Your task to perform on an android device: turn off wifi Image 0: 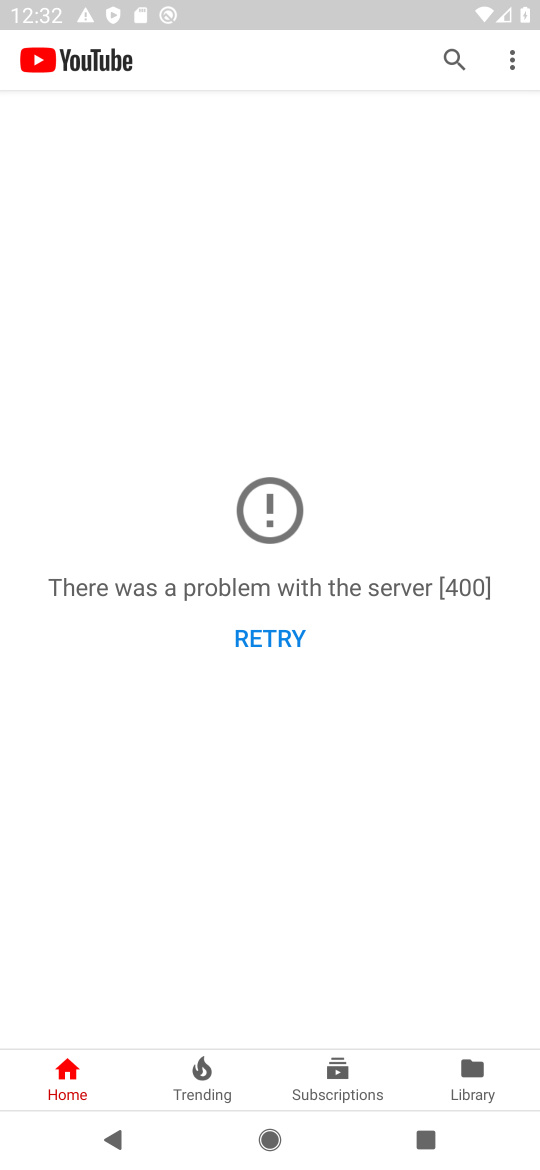
Step 0: press home button
Your task to perform on an android device: turn off wifi Image 1: 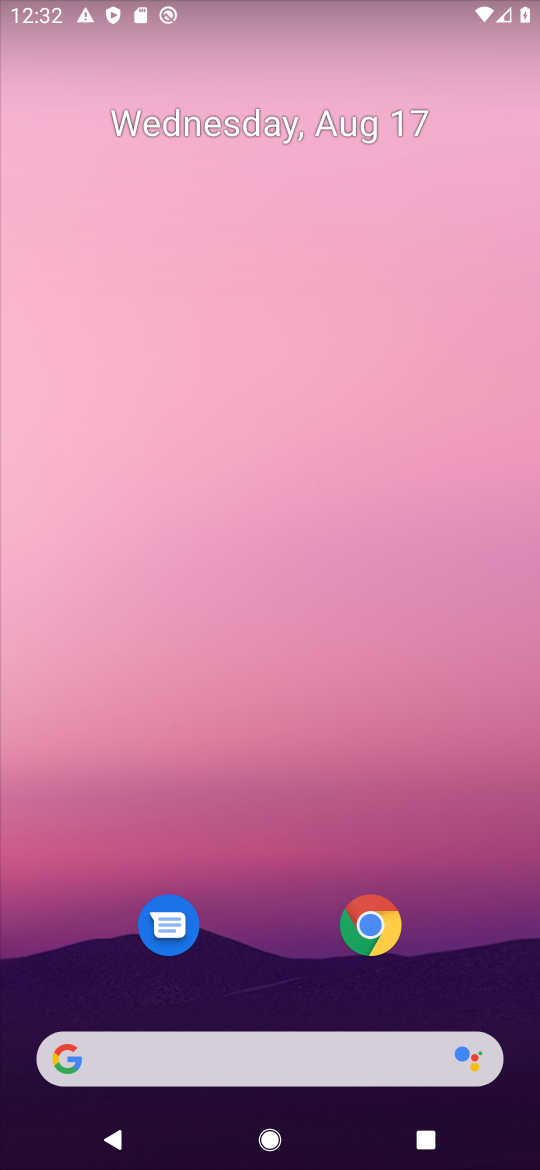
Step 1: drag from (187, 1039) to (136, 181)
Your task to perform on an android device: turn off wifi Image 2: 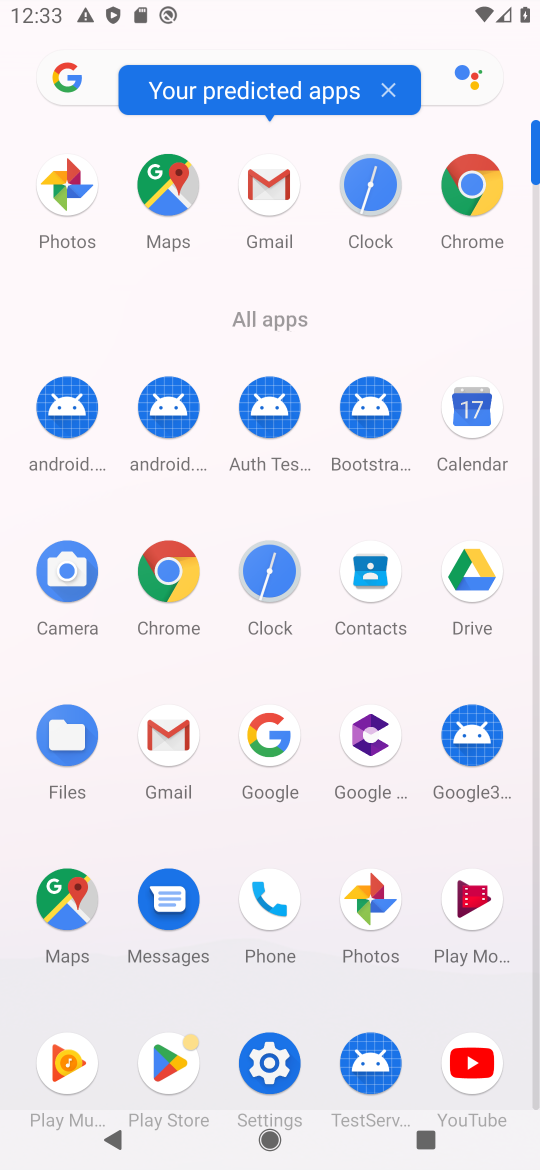
Step 2: click (271, 1031)
Your task to perform on an android device: turn off wifi Image 3: 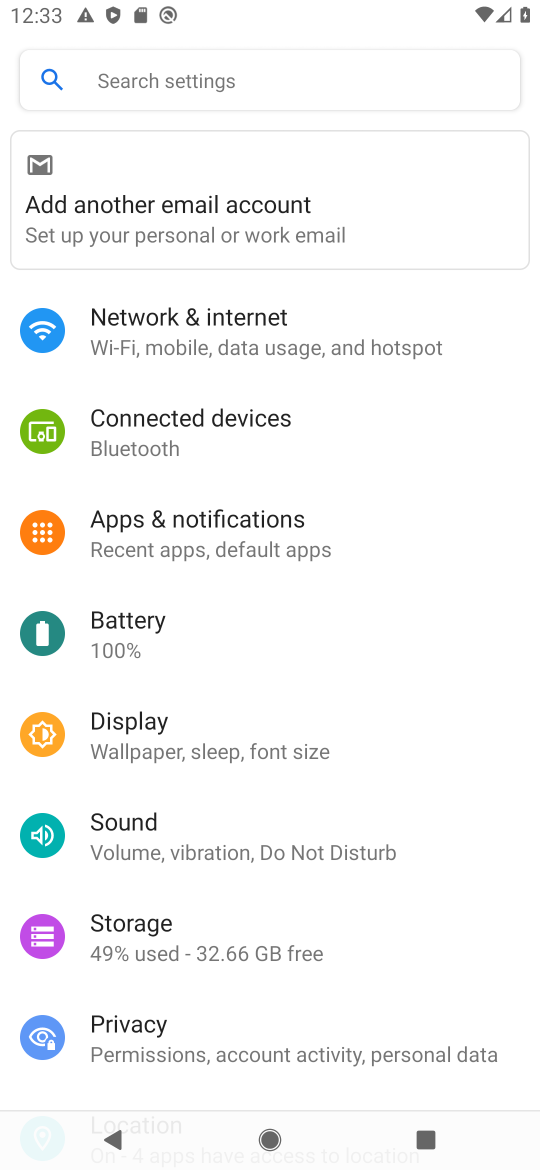
Step 3: click (126, 352)
Your task to perform on an android device: turn off wifi Image 4: 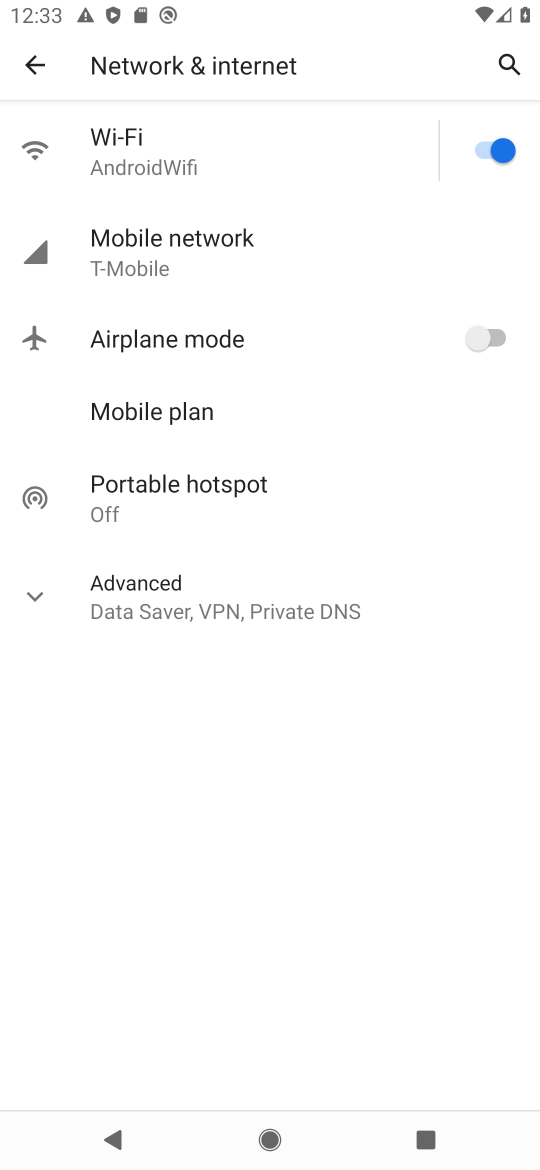
Step 4: click (495, 150)
Your task to perform on an android device: turn off wifi Image 5: 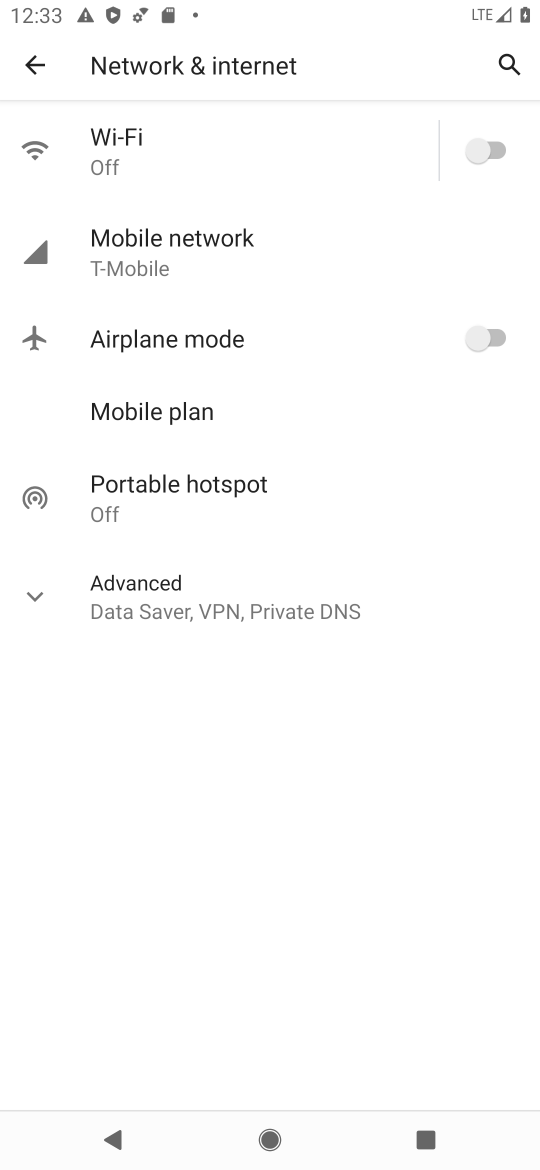
Step 5: click (174, 150)
Your task to perform on an android device: turn off wifi Image 6: 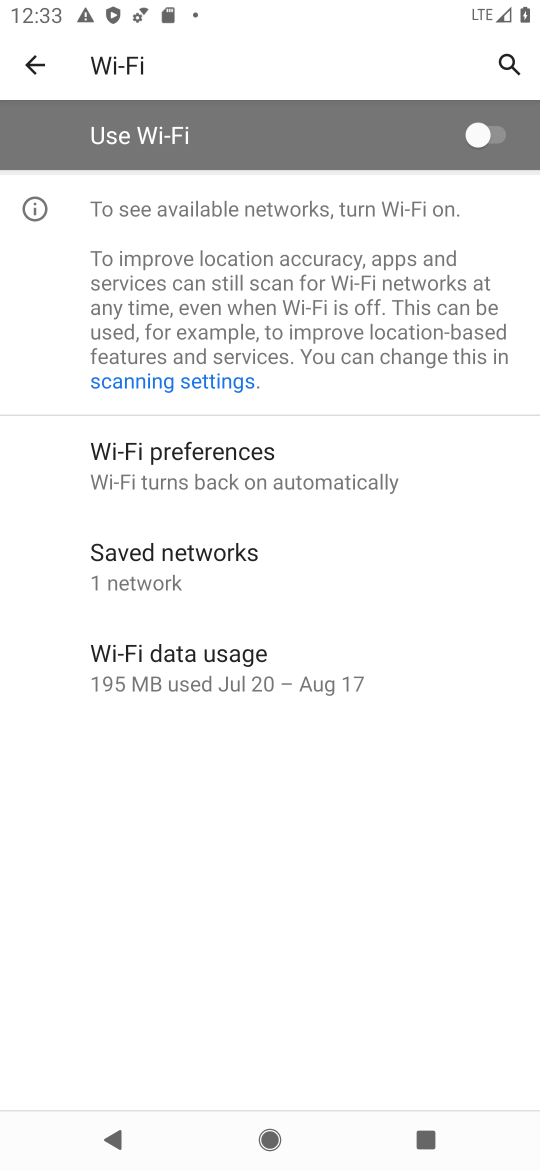
Step 6: task complete